Your task to perform on an android device: Toggle the flashlight Image 0: 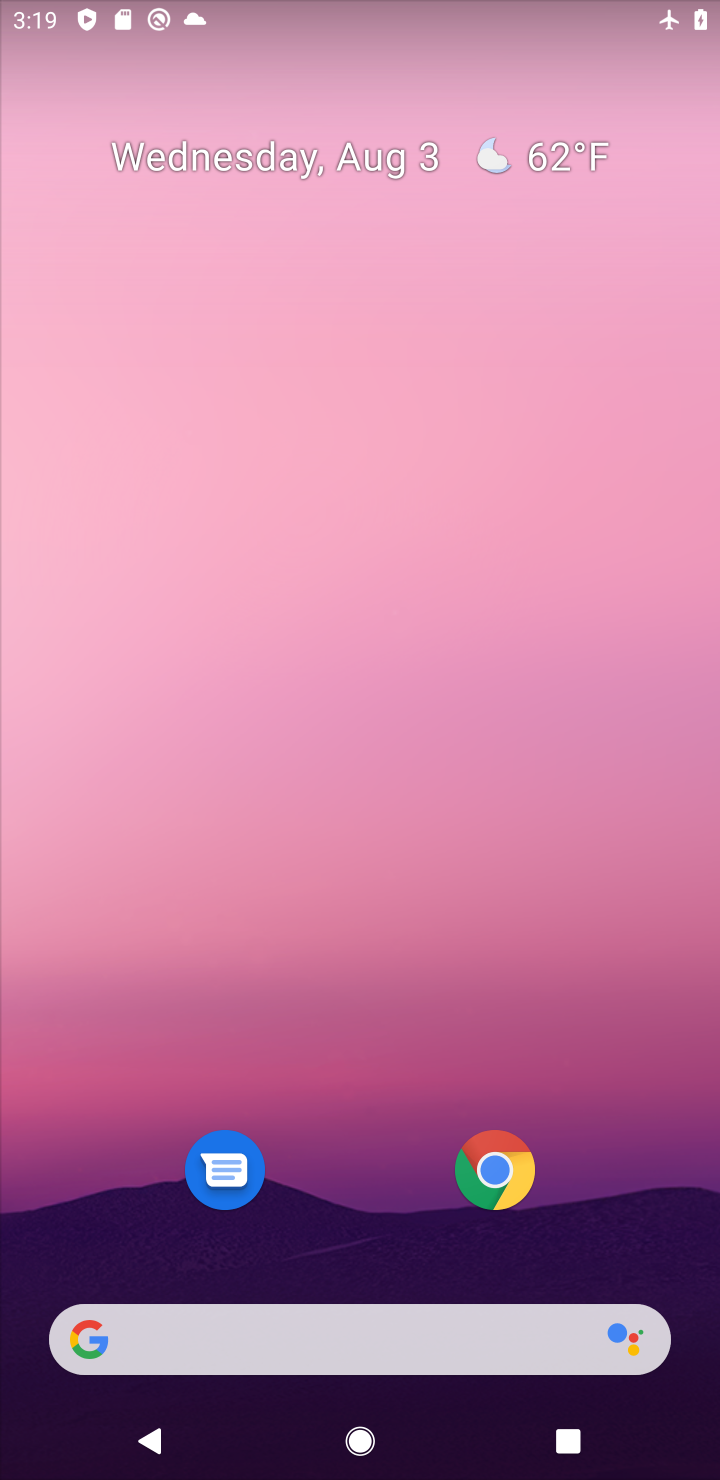
Step 0: drag from (335, 1108) to (260, 228)
Your task to perform on an android device: Toggle the flashlight Image 1: 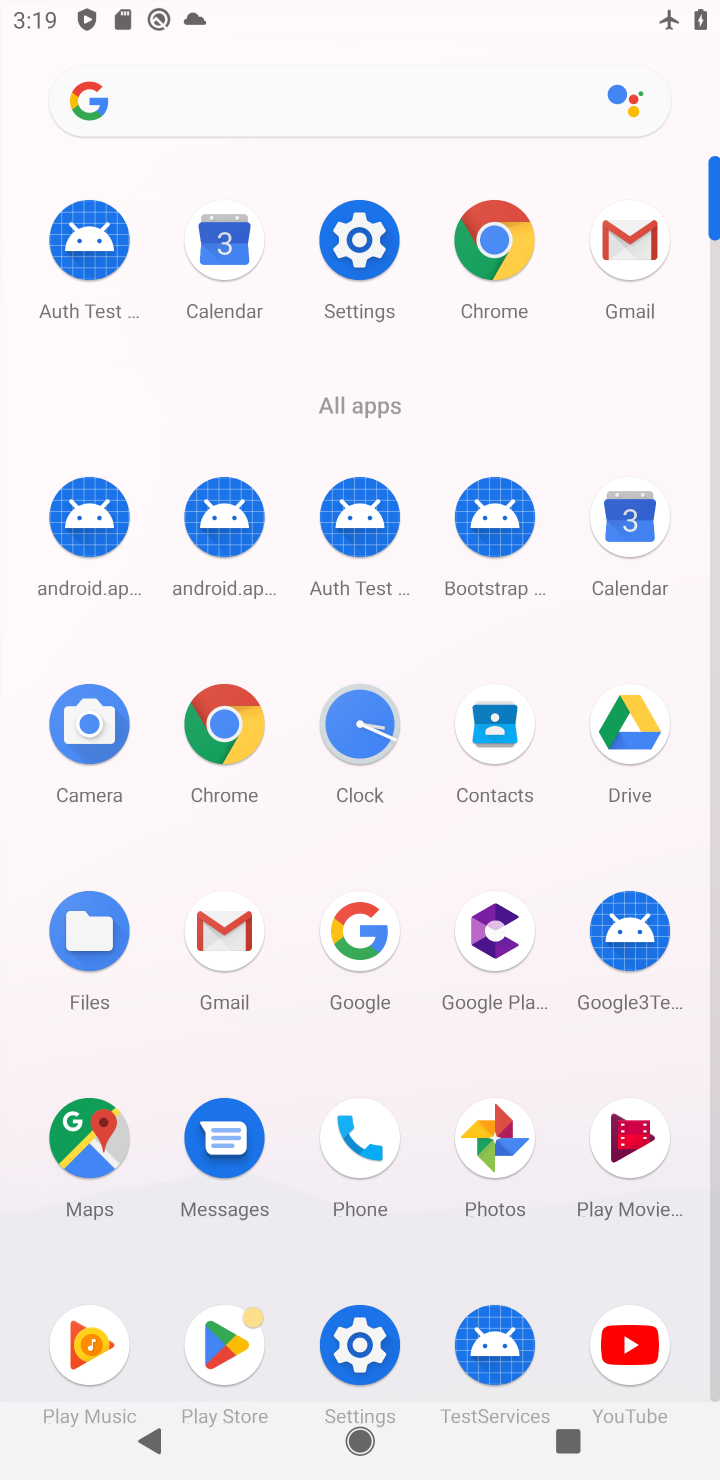
Step 1: click (356, 234)
Your task to perform on an android device: Toggle the flashlight Image 2: 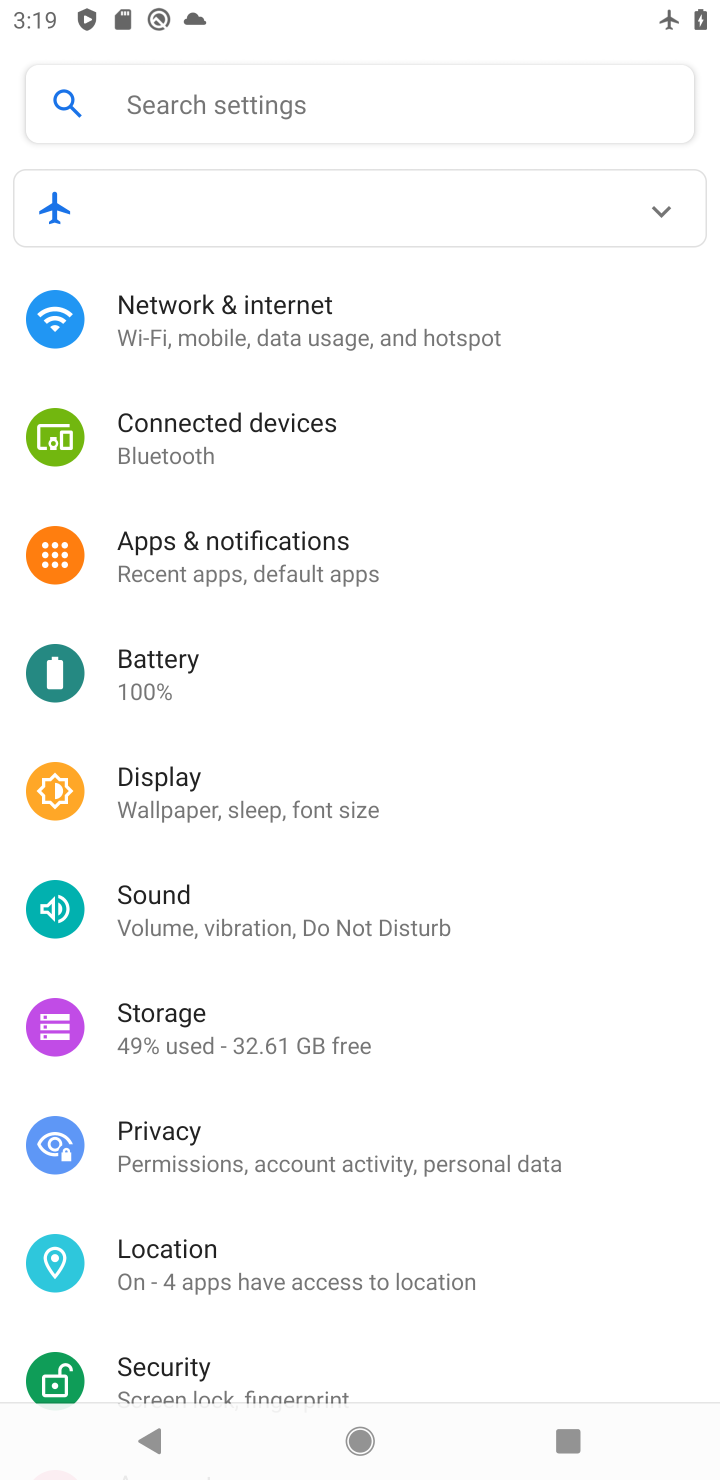
Step 2: task complete